Your task to perform on an android device: Open Youtube and go to "Your channel" Image 0: 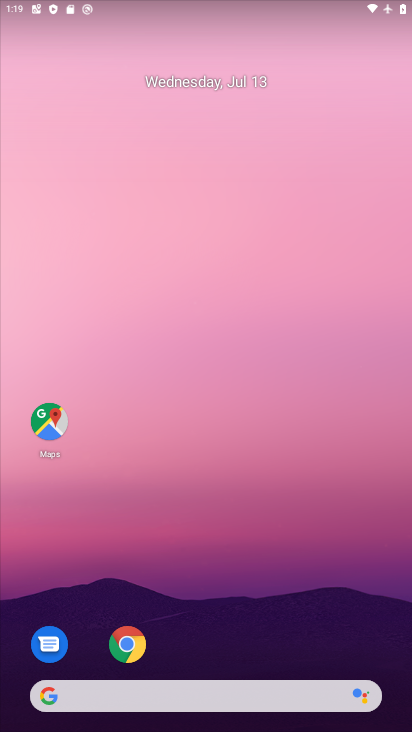
Step 0: drag from (322, 563) to (253, 22)
Your task to perform on an android device: Open Youtube and go to "Your channel" Image 1: 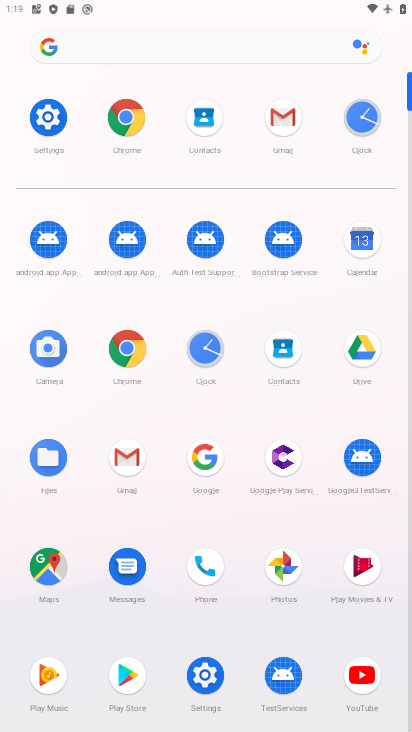
Step 1: click (361, 677)
Your task to perform on an android device: Open Youtube and go to "Your channel" Image 2: 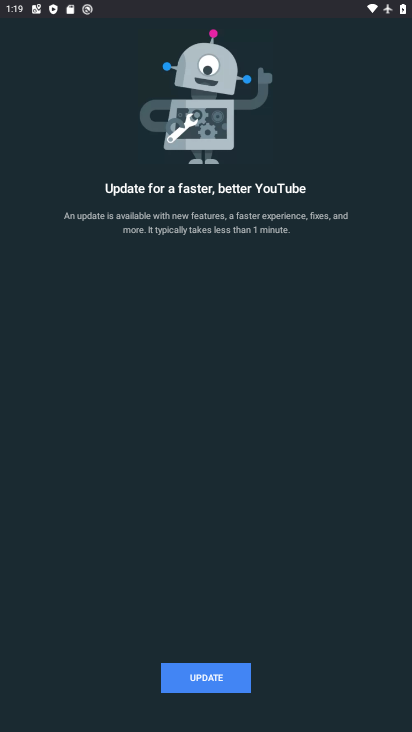
Step 2: task complete